Your task to perform on an android device: uninstall "McDonald's" Image 0: 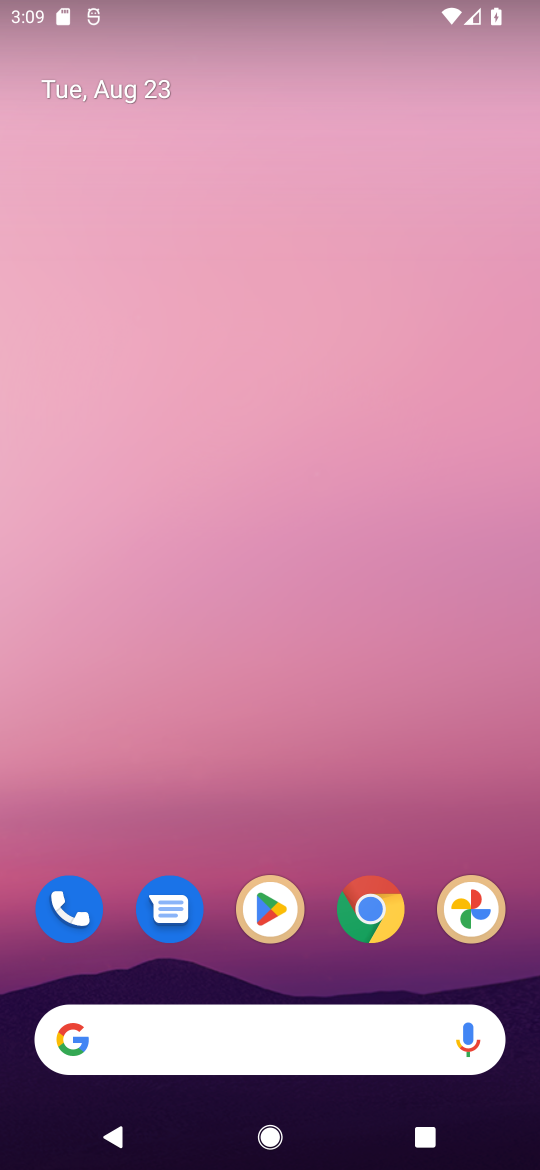
Step 0: click (263, 903)
Your task to perform on an android device: uninstall "McDonald's" Image 1: 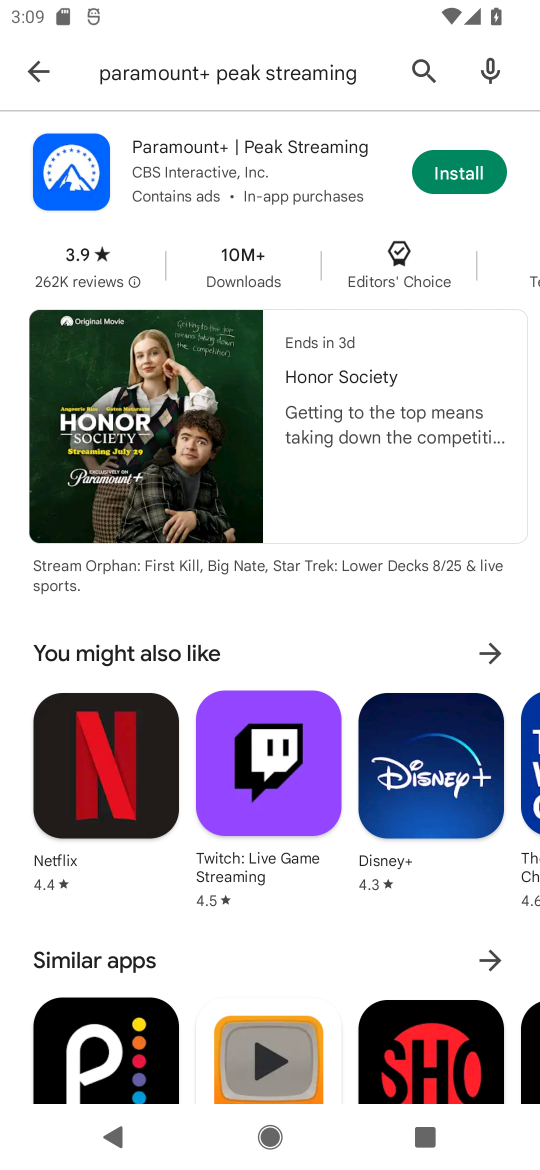
Step 1: click (424, 62)
Your task to perform on an android device: uninstall "McDonald's" Image 2: 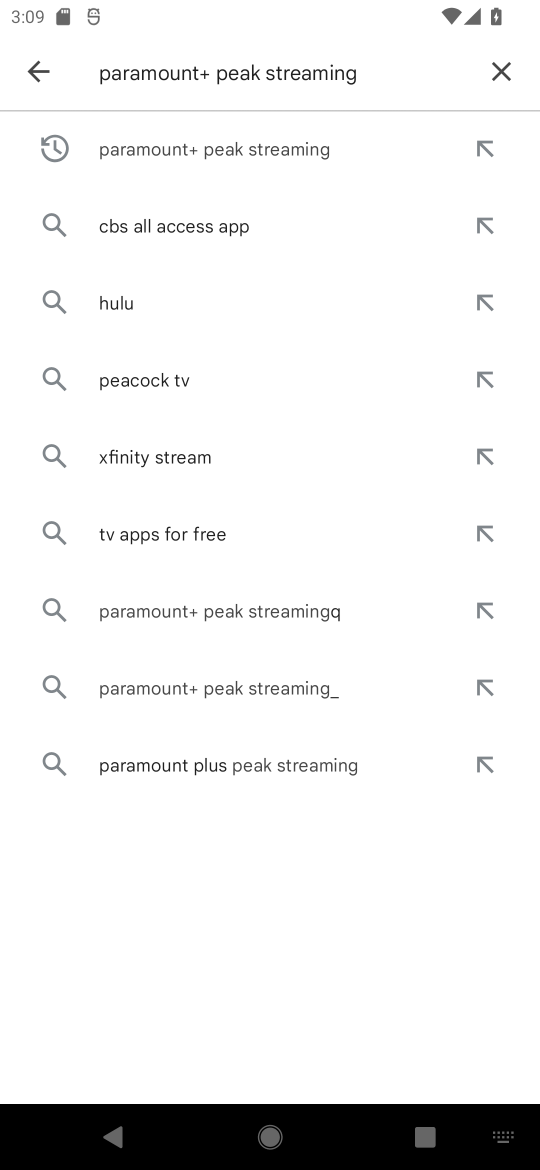
Step 2: click (501, 66)
Your task to perform on an android device: uninstall "McDonald's" Image 3: 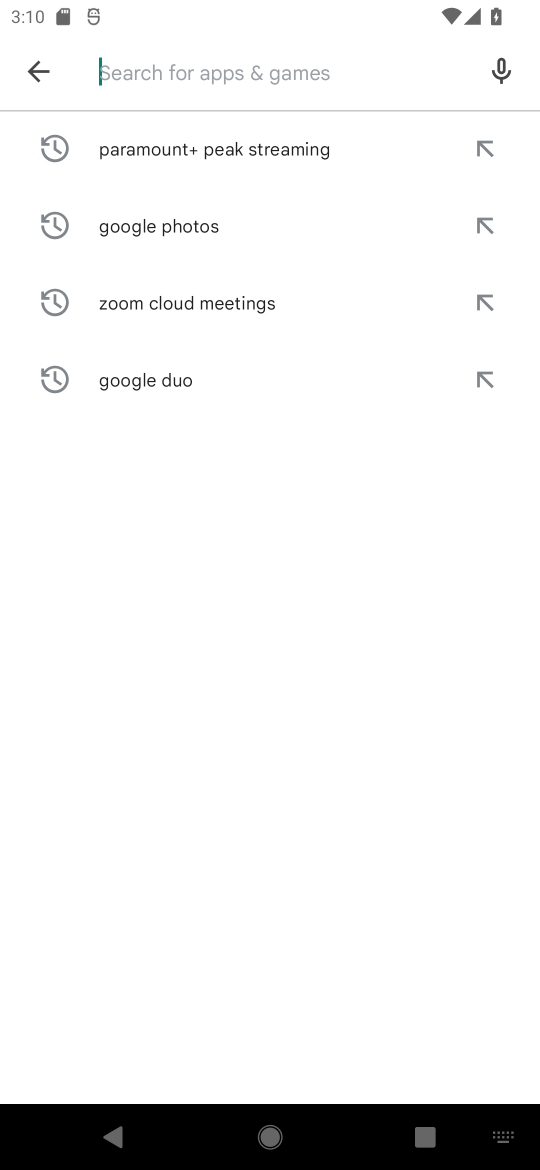
Step 3: type "McDonald's"
Your task to perform on an android device: uninstall "McDonald's" Image 4: 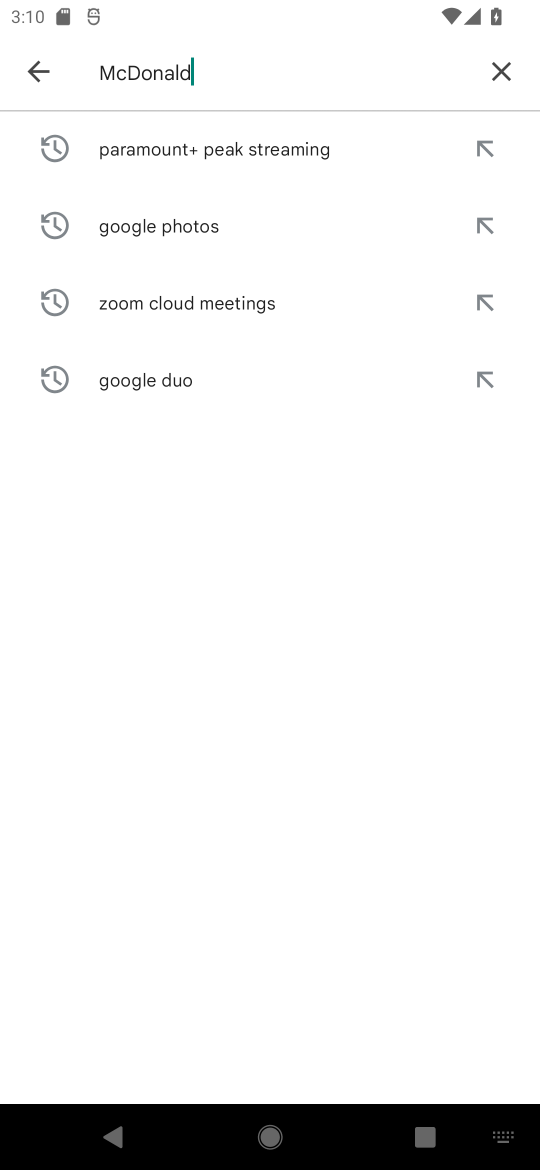
Step 4: type ""
Your task to perform on an android device: uninstall "McDonald's" Image 5: 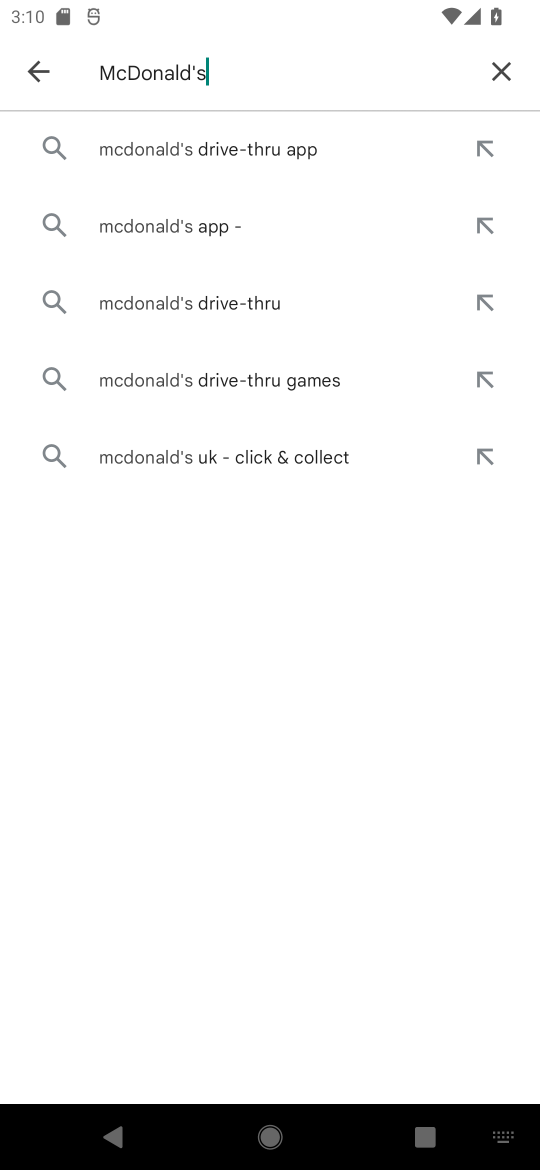
Step 5: click (235, 217)
Your task to perform on an android device: uninstall "McDonald's" Image 6: 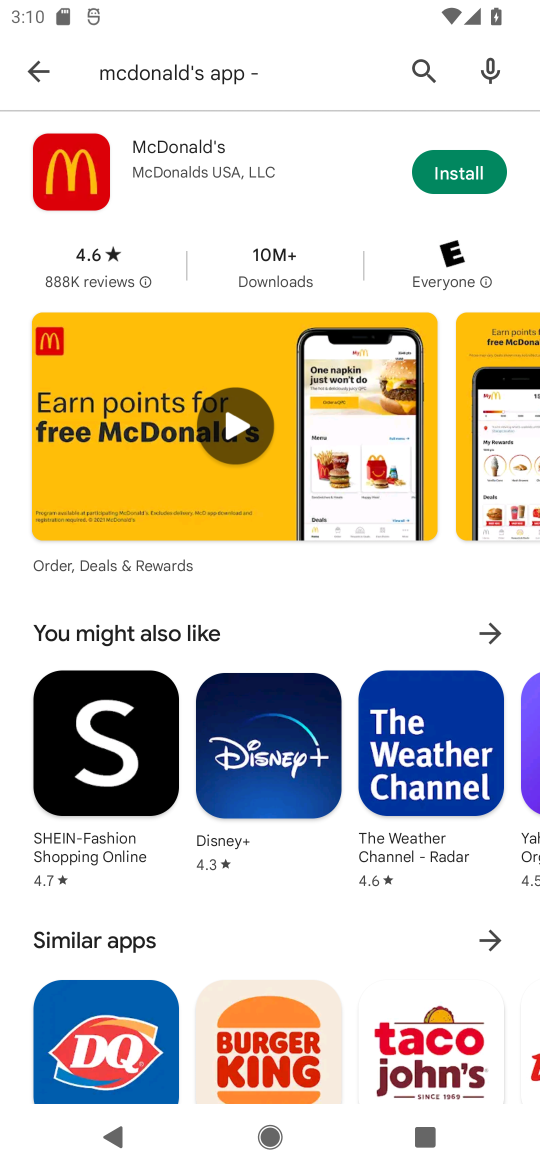
Step 6: task complete